Your task to perform on an android device: Open Wikipedia Image 0: 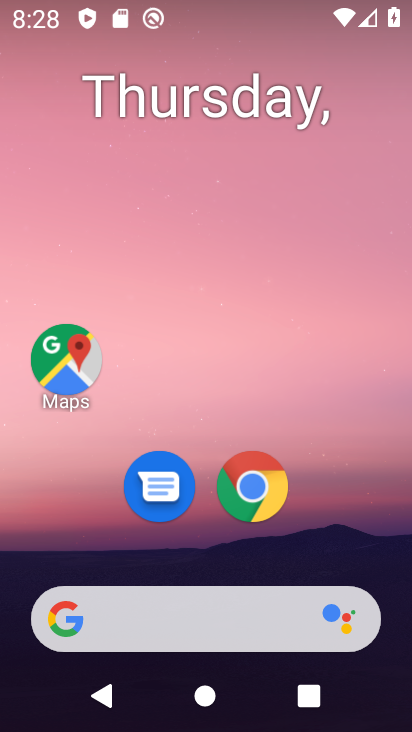
Step 0: click (251, 490)
Your task to perform on an android device: Open Wikipedia Image 1: 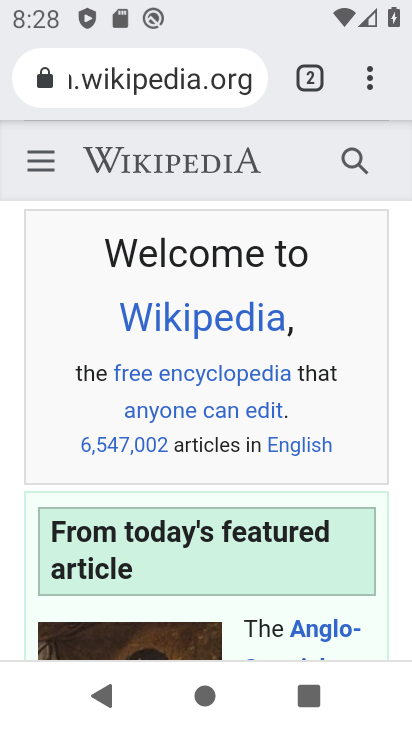
Step 1: task complete